Your task to perform on an android device: turn off translation in the chrome app Image 0: 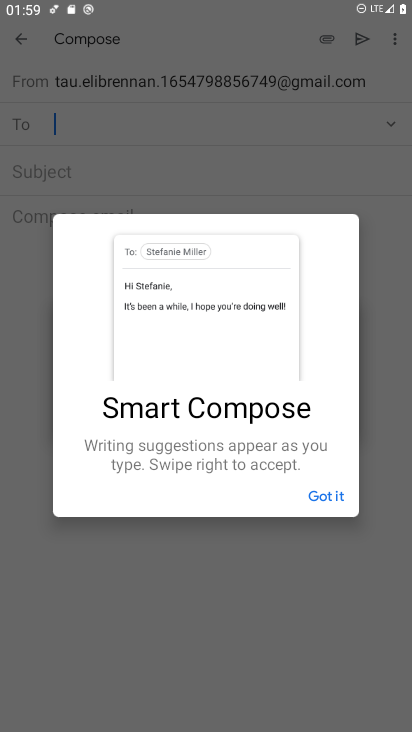
Step 0: press home button
Your task to perform on an android device: turn off translation in the chrome app Image 1: 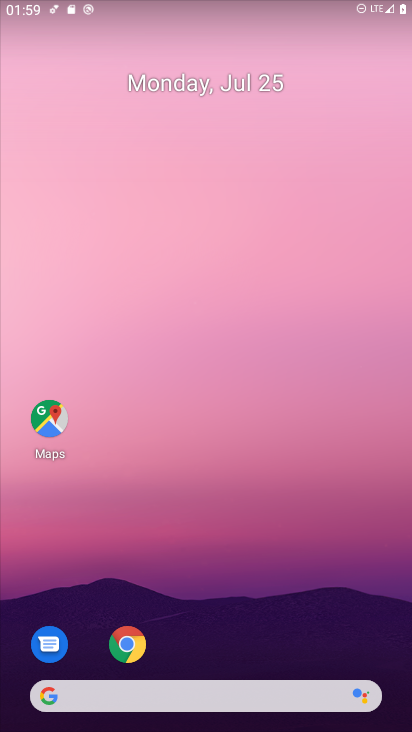
Step 1: drag from (238, 721) to (223, 266)
Your task to perform on an android device: turn off translation in the chrome app Image 2: 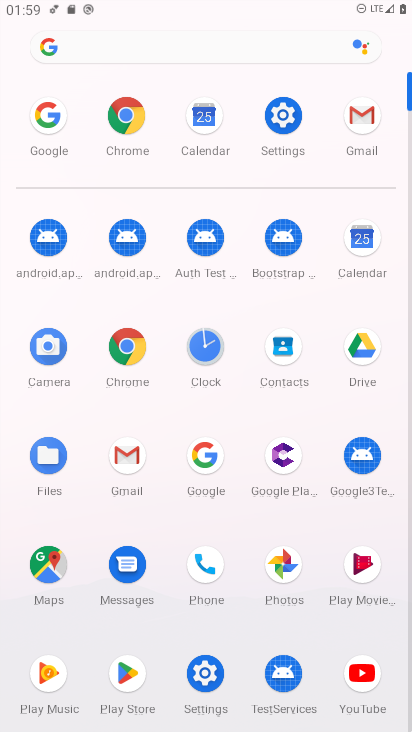
Step 2: click (128, 342)
Your task to perform on an android device: turn off translation in the chrome app Image 3: 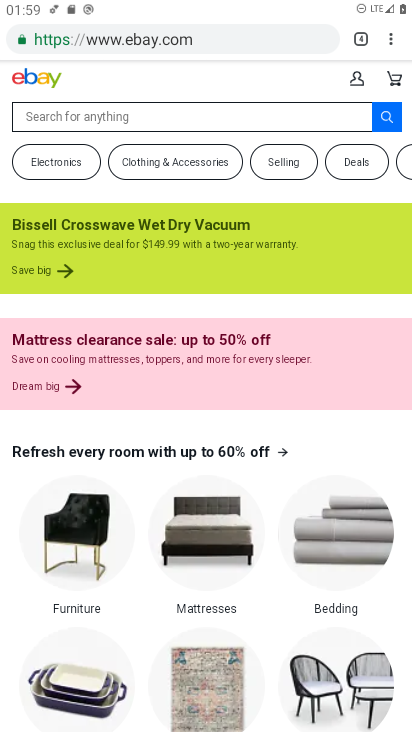
Step 3: click (389, 41)
Your task to perform on an android device: turn off translation in the chrome app Image 4: 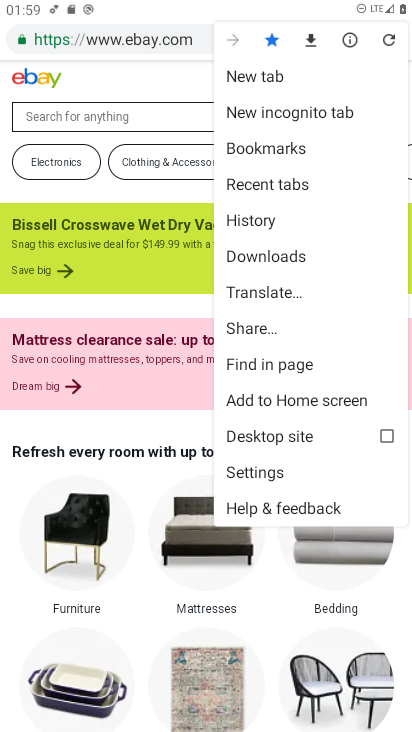
Step 4: click (259, 470)
Your task to perform on an android device: turn off translation in the chrome app Image 5: 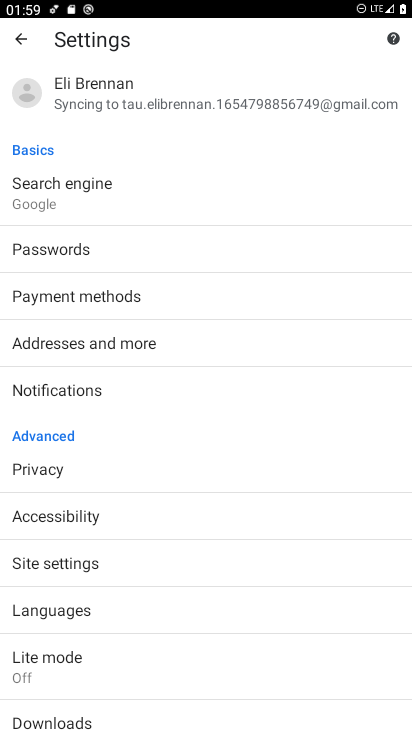
Step 5: click (57, 610)
Your task to perform on an android device: turn off translation in the chrome app Image 6: 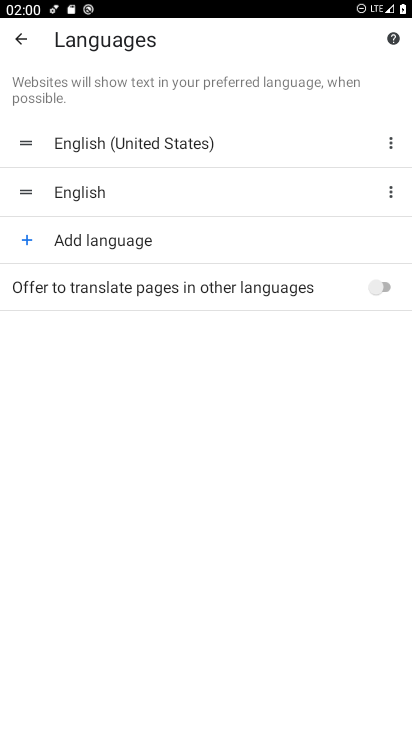
Step 6: task complete